Your task to perform on an android device: turn on wifi Image 0: 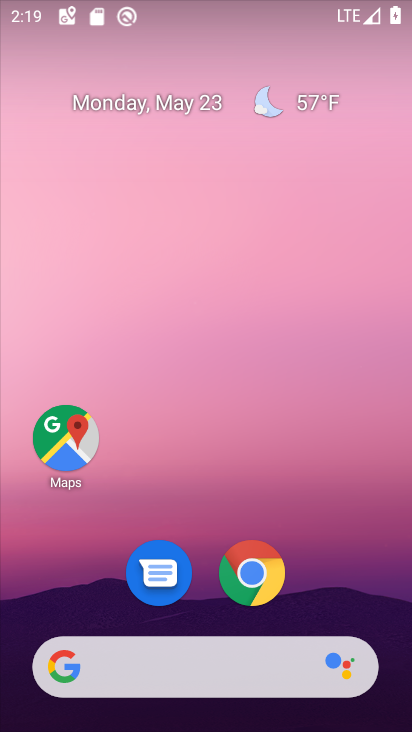
Step 0: drag from (341, 576) to (281, 66)
Your task to perform on an android device: turn on wifi Image 1: 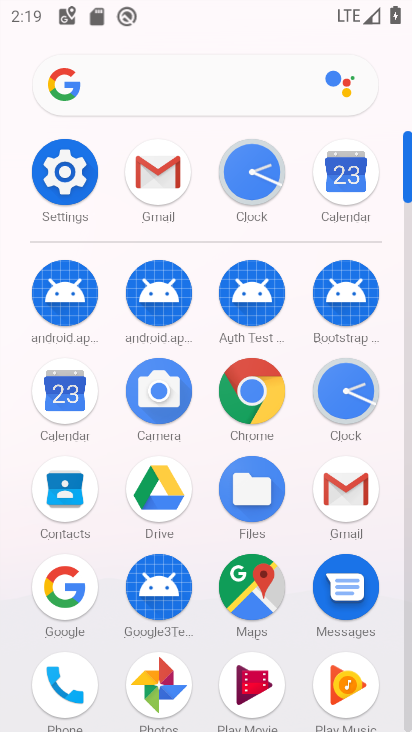
Step 1: click (67, 171)
Your task to perform on an android device: turn on wifi Image 2: 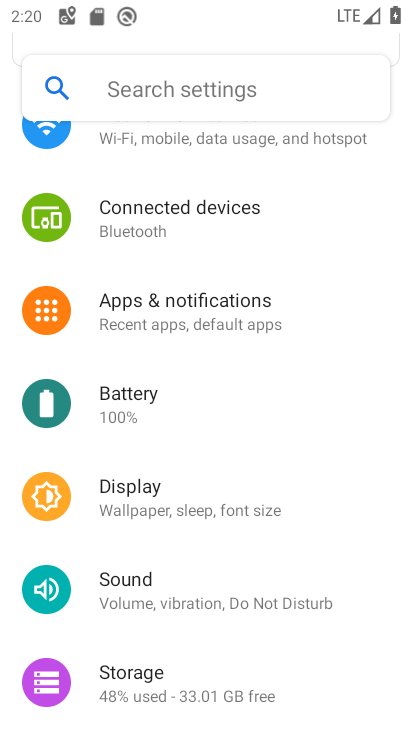
Step 2: drag from (320, 190) to (281, 479)
Your task to perform on an android device: turn on wifi Image 3: 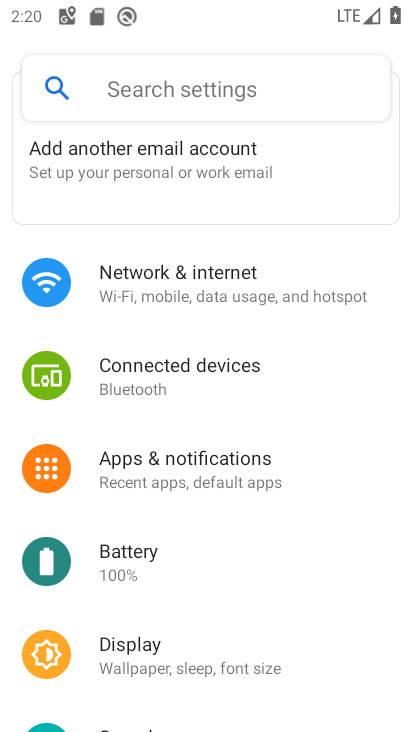
Step 3: click (170, 278)
Your task to perform on an android device: turn on wifi Image 4: 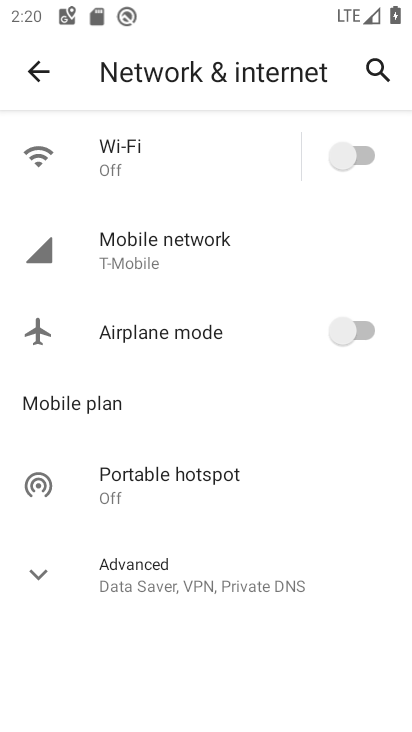
Step 4: click (360, 159)
Your task to perform on an android device: turn on wifi Image 5: 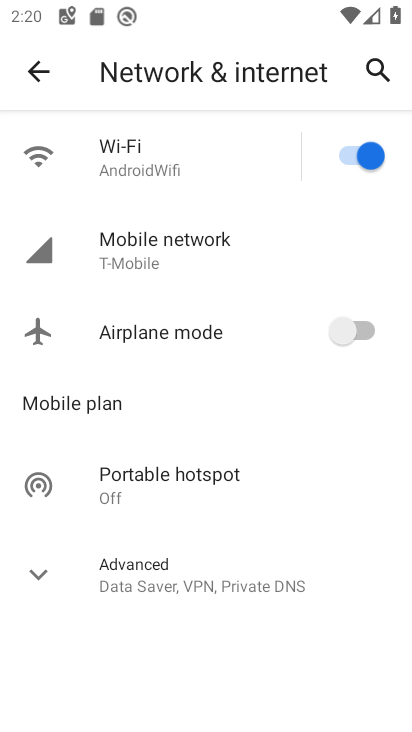
Step 5: task complete